Your task to perform on an android device: Go to Maps Image 0: 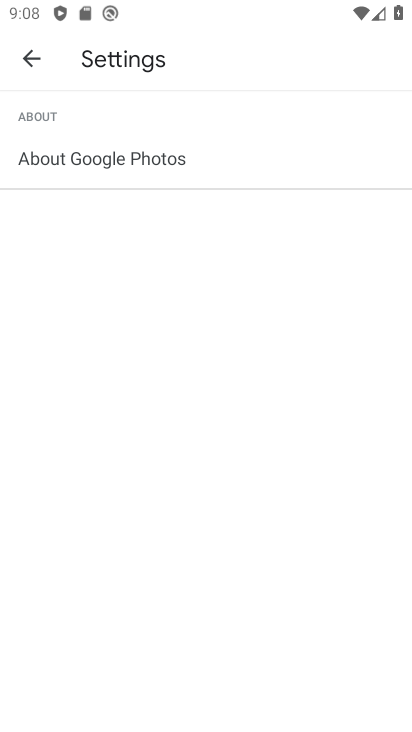
Step 0: press home button
Your task to perform on an android device: Go to Maps Image 1: 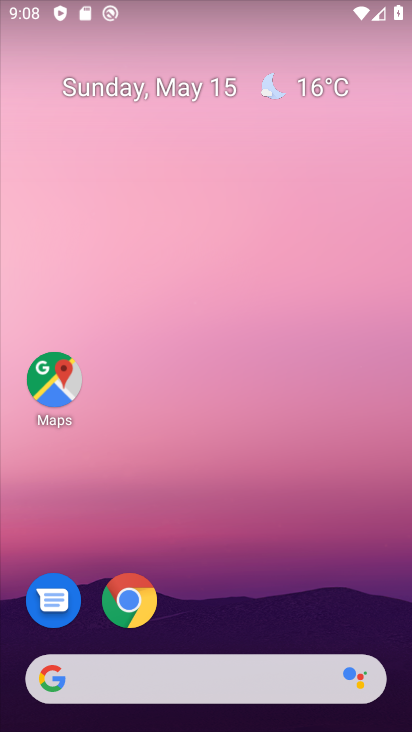
Step 1: click (62, 375)
Your task to perform on an android device: Go to Maps Image 2: 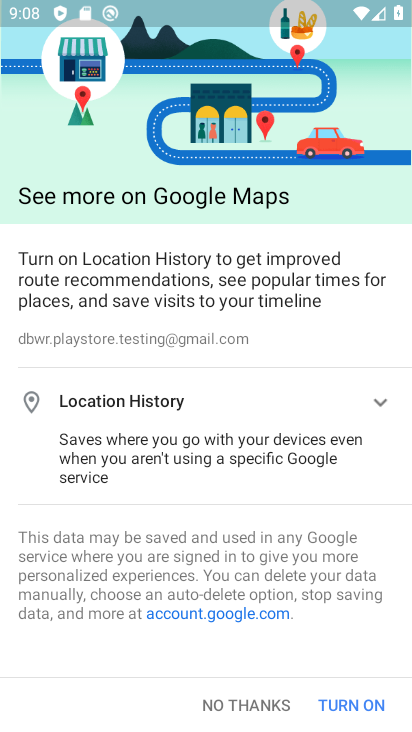
Step 2: task complete